Your task to perform on an android device: open the mobile data screen to see how much data has been used Image 0: 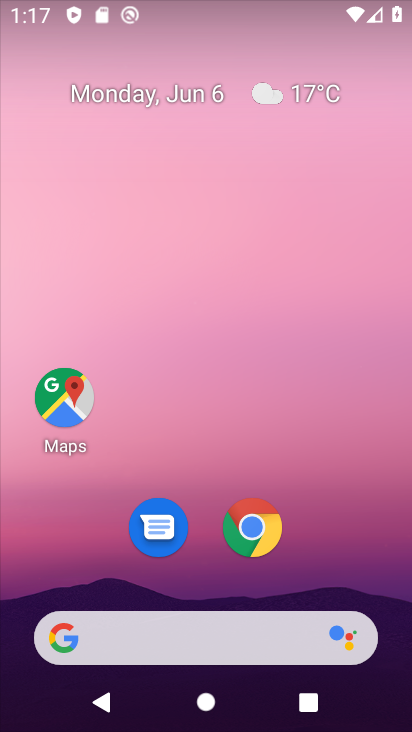
Step 0: drag from (231, 726) to (193, 78)
Your task to perform on an android device: open the mobile data screen to see how much data has been used Image 1: 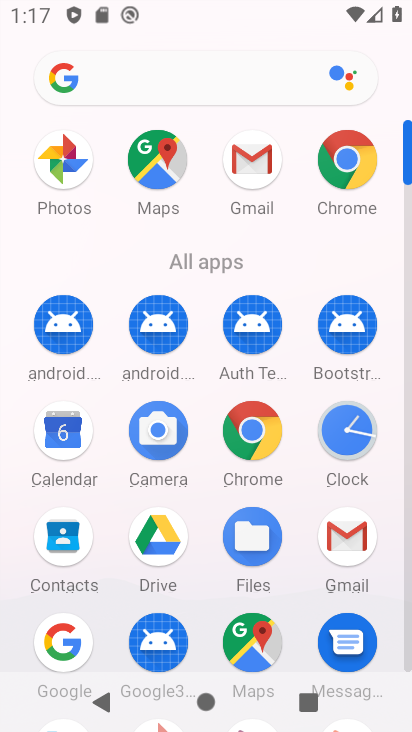
Step 1: drag from (292, 607) to (292, 217)
Your task to perform on an android device: open the mobile data screen to see how much data has been used Image 2: 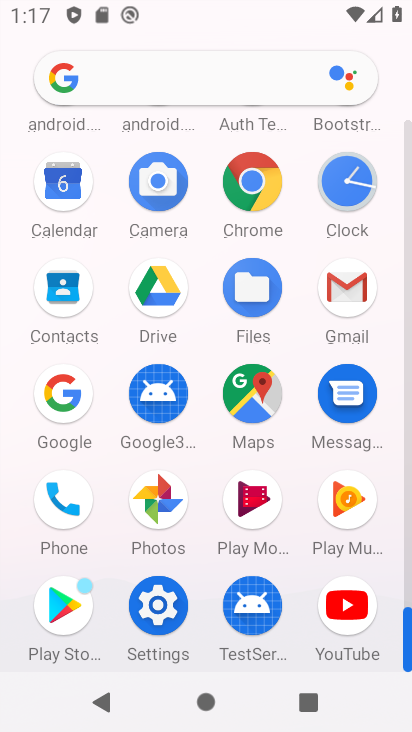
Step 2: click (167, 600)
Your task to perform on an android device: open the mobile data screen to see how much data has been used Image 3: 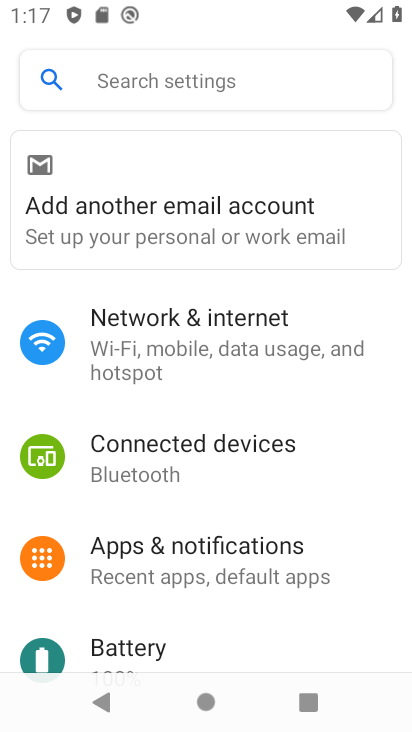
Step 3: click (158, 330)
Your task to perform on an android device: open the mobile data screen to see how much data has been used Image 4: 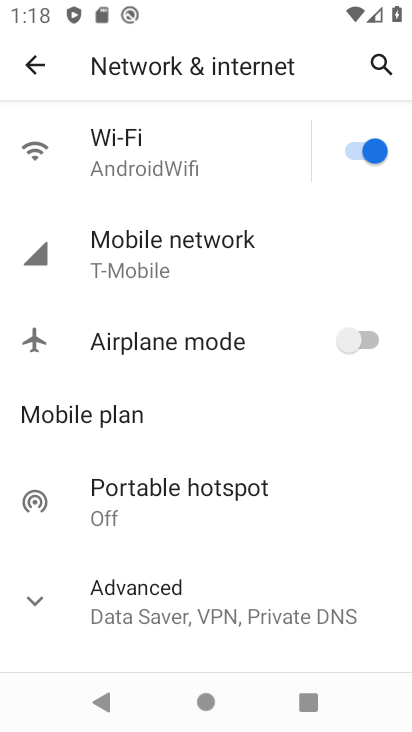
Step 4: click (147, 247)
Your task to perform on an android device: open the mobile data screen to see how much data has been used Image 5: 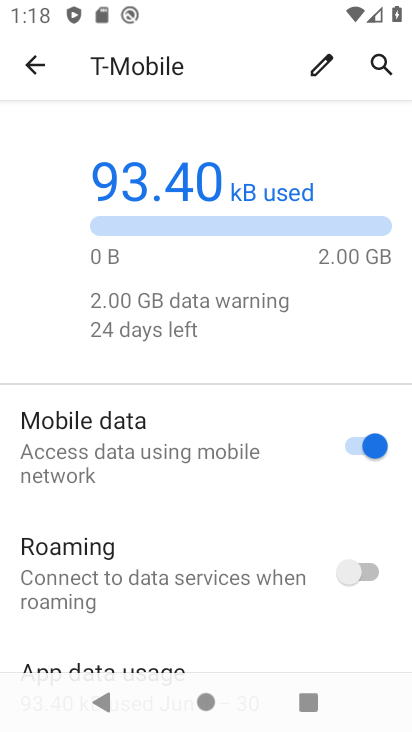
Step 5: drag from (171, 652) to (166, 253)
Your task to perform on an android device: open the mobile data screen to see how much data has been used Image 6: 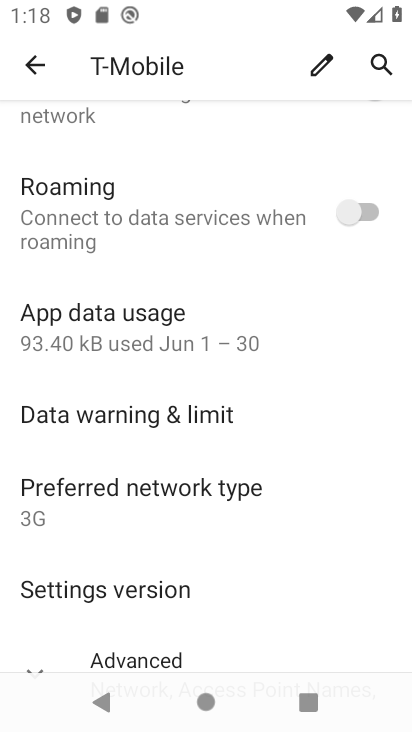
Step 6: click (99, 315)
Your task to perform on an android device: open the mobile data screen to see how much data has been used Image 7: 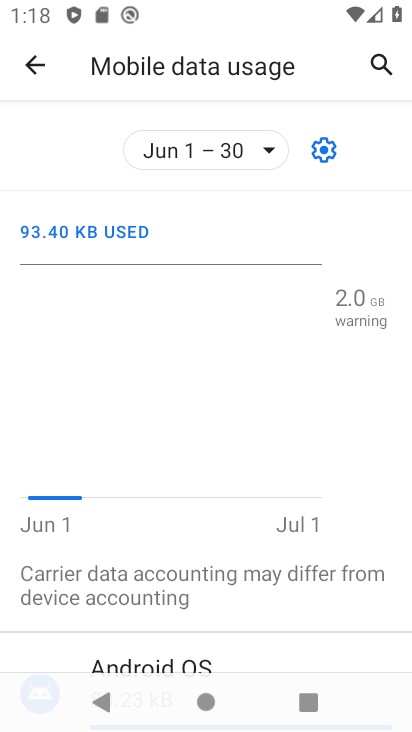
Step 7: task complete